Your task to perform on an android device: Open display settings Image 0: 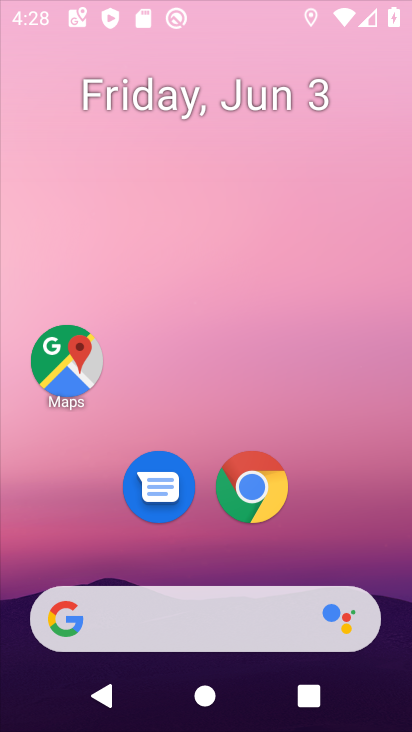
Step 0: click (224, 194)
Your task to perform on an android device: Open display settings Image 1: 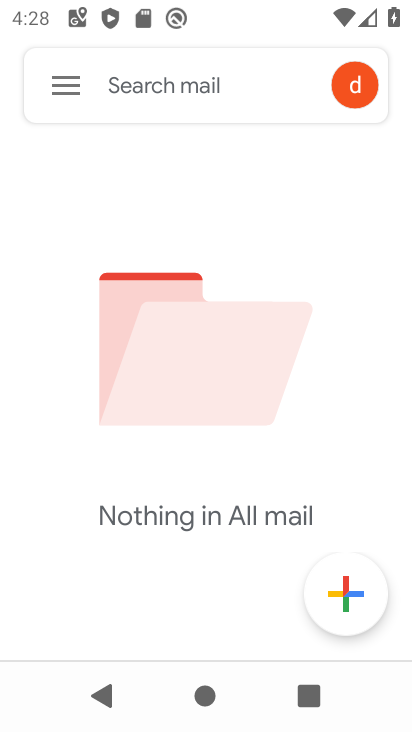
Step 1: press home button
Your task to perform on an android device: Open display settings Image 2: 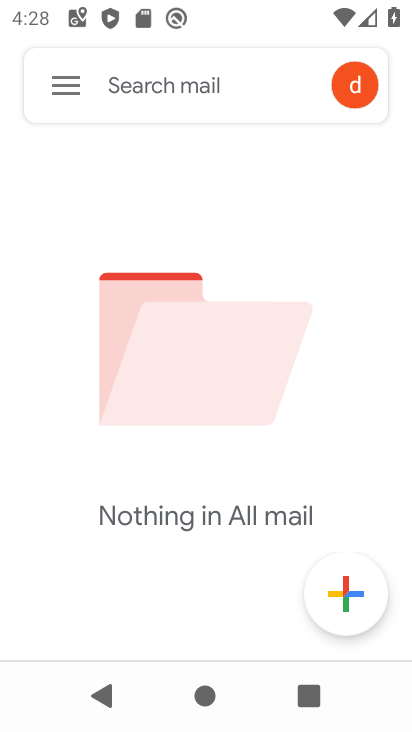
Step 2: press home button
Your task to perform on an android device: Open display settings Image 3: 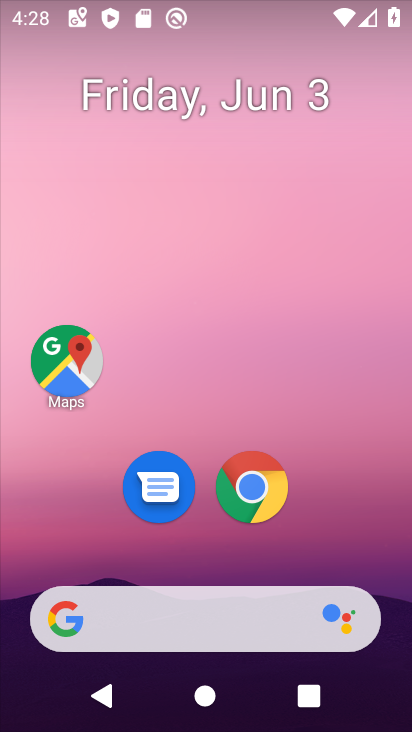
Step 3: drag from (204, 533) to (251, 247)
Your task to perform on an android device: Open display settings Image 4: 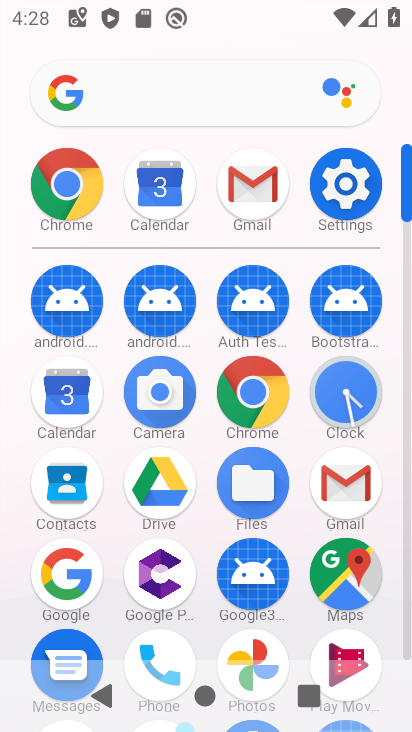
Step 4: click (335, 183)
Your task to perform on an android device: Open display settings Image 5: 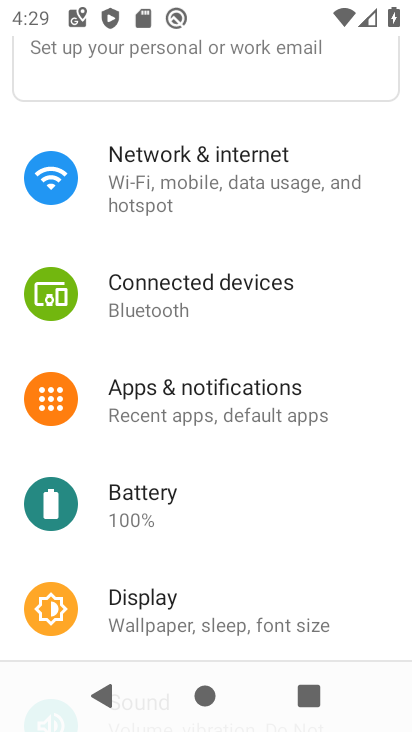
Step 5: drag from (194, 588) to (221, 418)
Your task to perform on an android device: Open display settings Image 6: 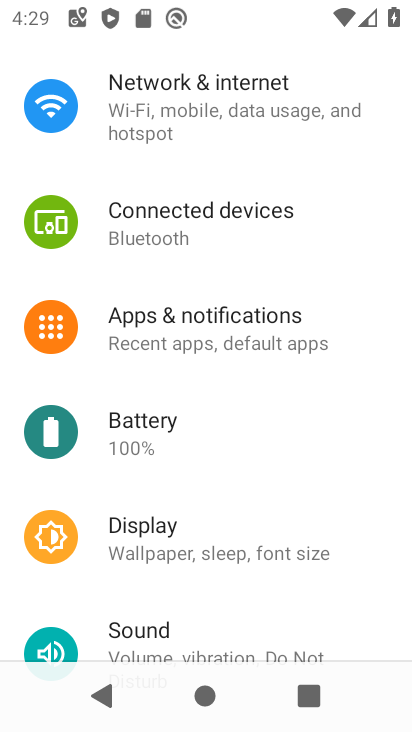
Step 6: drag from (216, 628) to (273, 269)
Your task to perform on an android device: Open display settings Image 7: 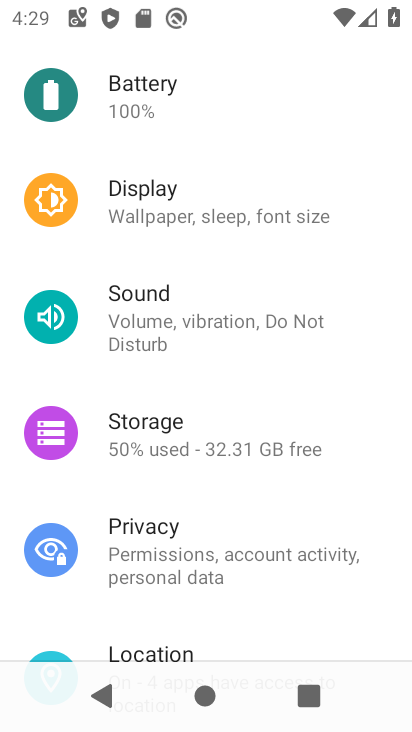
Step 7: click (226, 216)
Your task to perform on an android device: Open display settings Image 8: 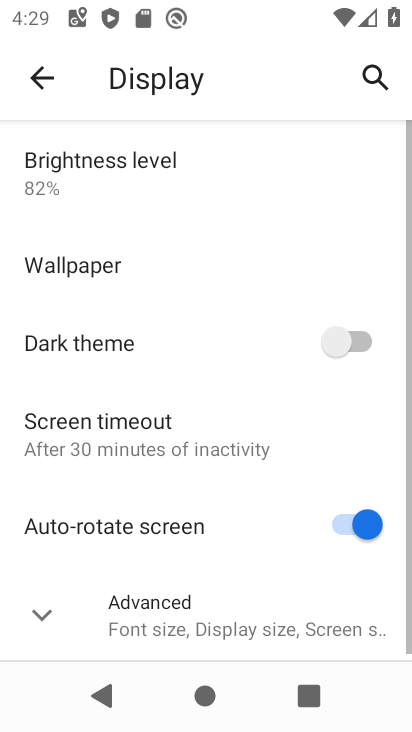
Step 8: task complete